Your task to perform on an android device: check google app version Image 0: 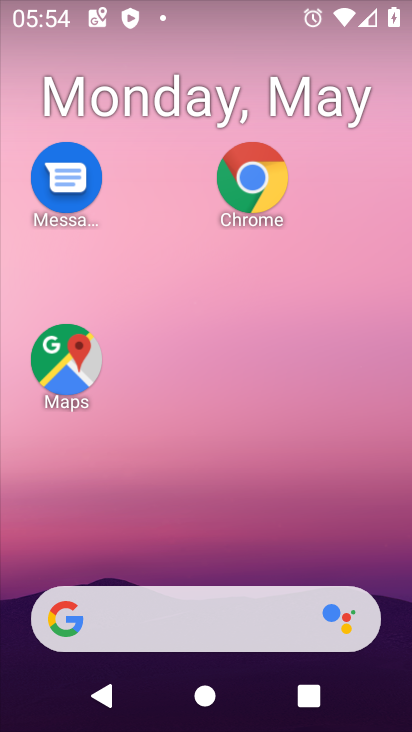
Step 0: drag from (229, 567) to (234, 53)
Your task to perform on an android device: check google app version Image 1: 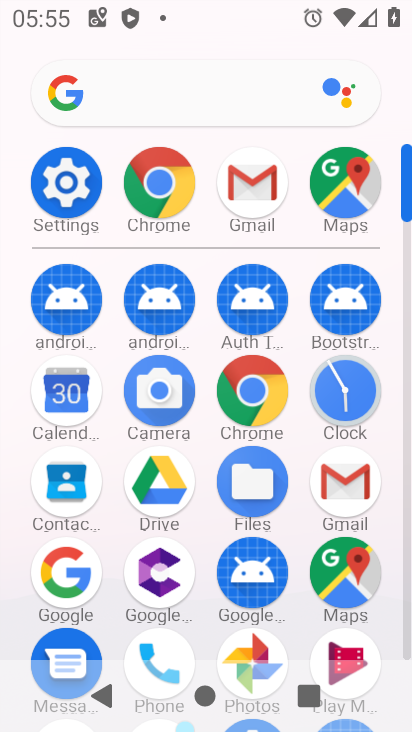
Step 1: click (61, 574)
Your task to perform on an android device: check google app version Image 2: 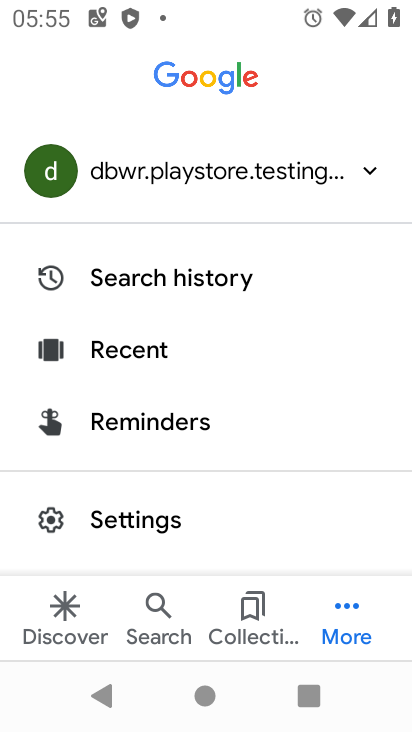
Step 2: click (106, 512)
Your task to perform on an android device: check google app version Image 3: 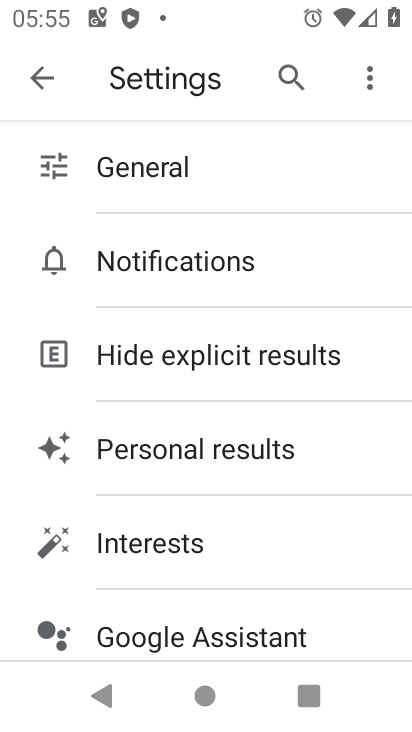
Step 3: drag from (148, 575) to (145, 200)
Your task to perform on an android device: check google app version Image 4: 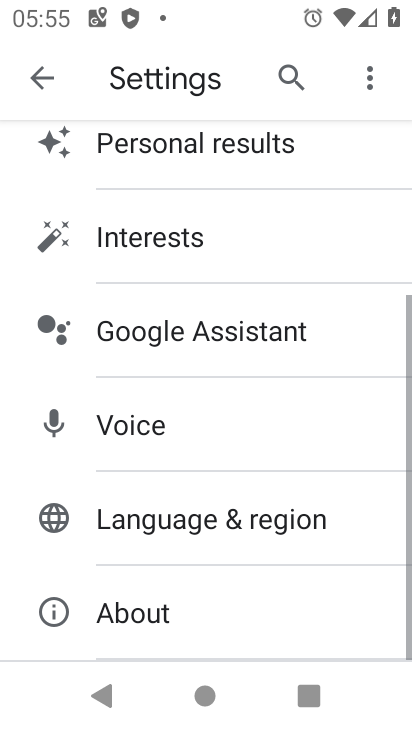
Step 4: click (129, 613)
Your task to perform on an android device: check google app version Image 5: 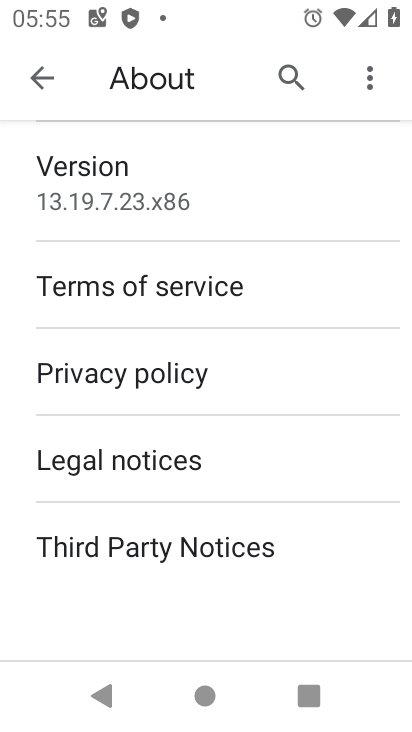
Step 5: task complete